Your task to perform on an android device: Go to Yahoo.com Image 0: 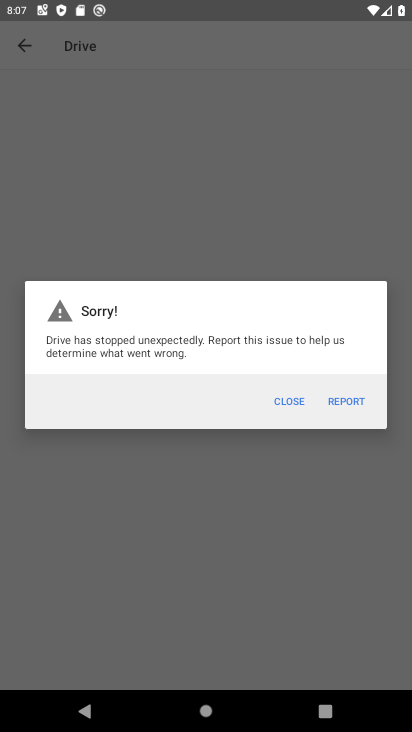
Step 0: press home button
Your task to perform on an android device: Go to Yahoo.com Image 1: 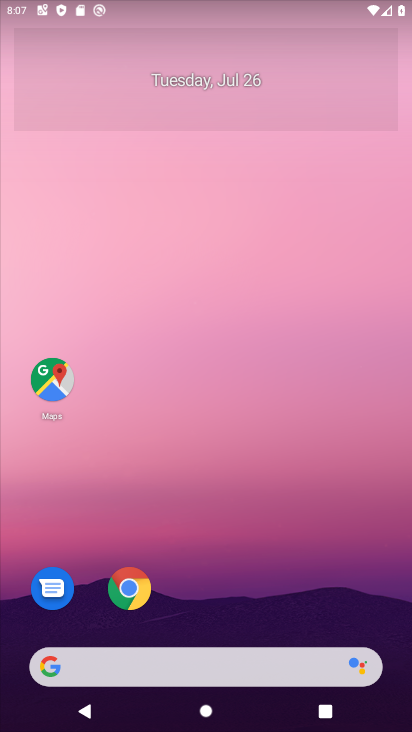
Step 1: click (205, 697)
Your task to perform on an android device: Go to Yahoo.com Image 2: 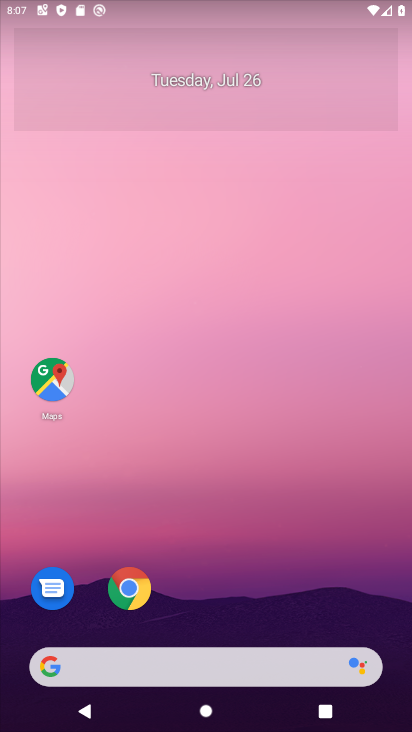
Step 2: click (194, 675)
Your task to perform on an android device: Go to Yahoo.com Image 3: 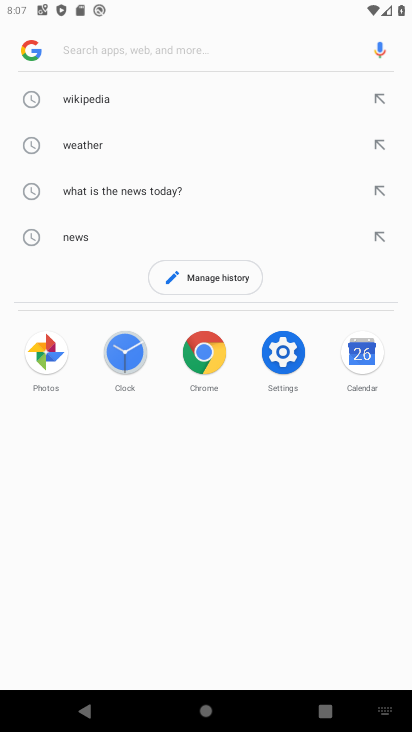
Step 3: type "Yahoo.com"
Your task to perform on an android device: Go to Yahoo.com Image 4: 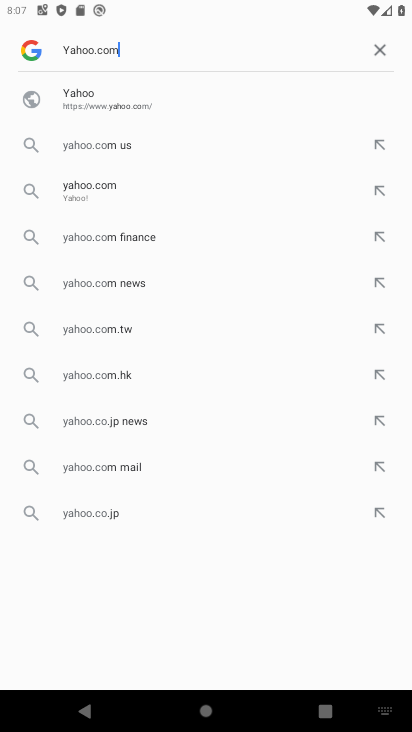
Step 4: press enter
Your task to perform on an android device: Go to Yahoo.com Image 5: 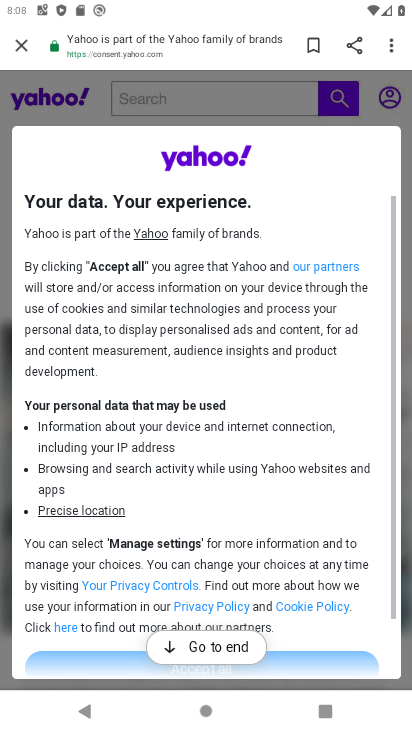
Step 5: click (235, 658)
Your task to perform on an android device: Go to Yahoo.com Image 6: 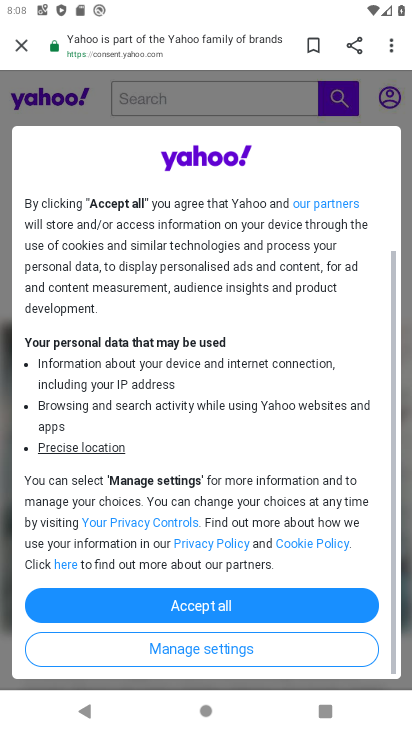
Step 6: click (233, 617)
Your task to perform on an android device: Go to Yahoo.com Image 7: 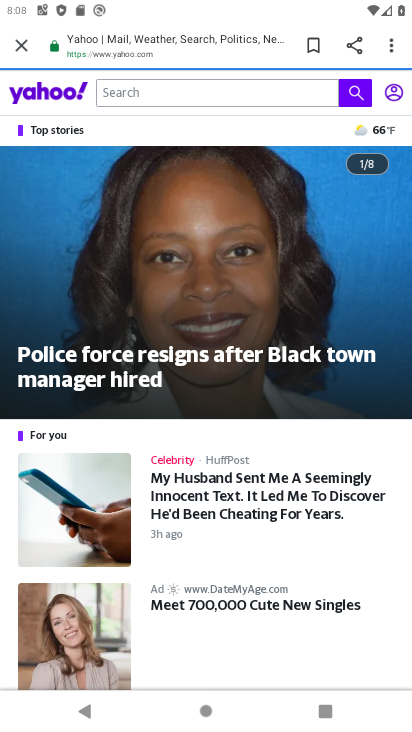
Step 7: task complete